Your task to perform on an android device: When is my next meeting? Image 0: 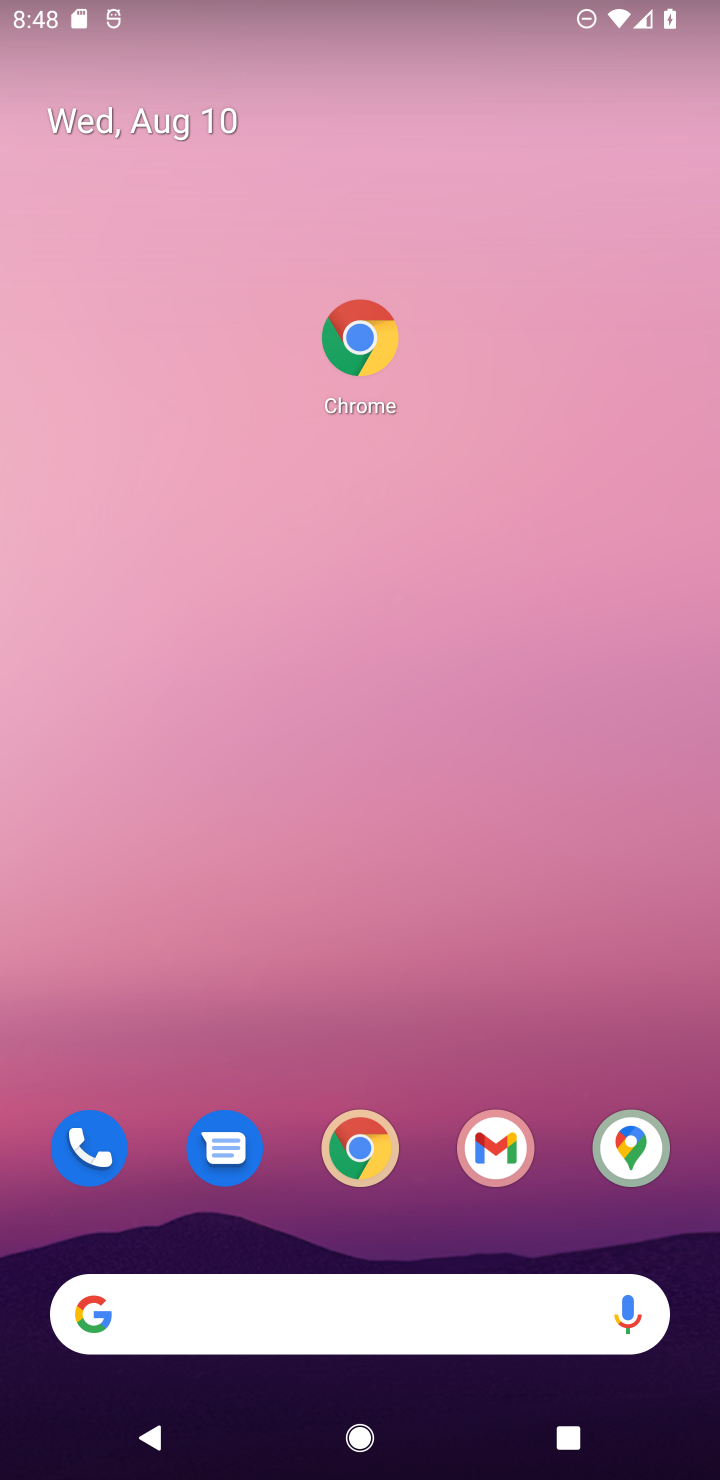
Step 0: click (87, 114)
Your task to perform on an android device: When is my next meeting? Image 1: 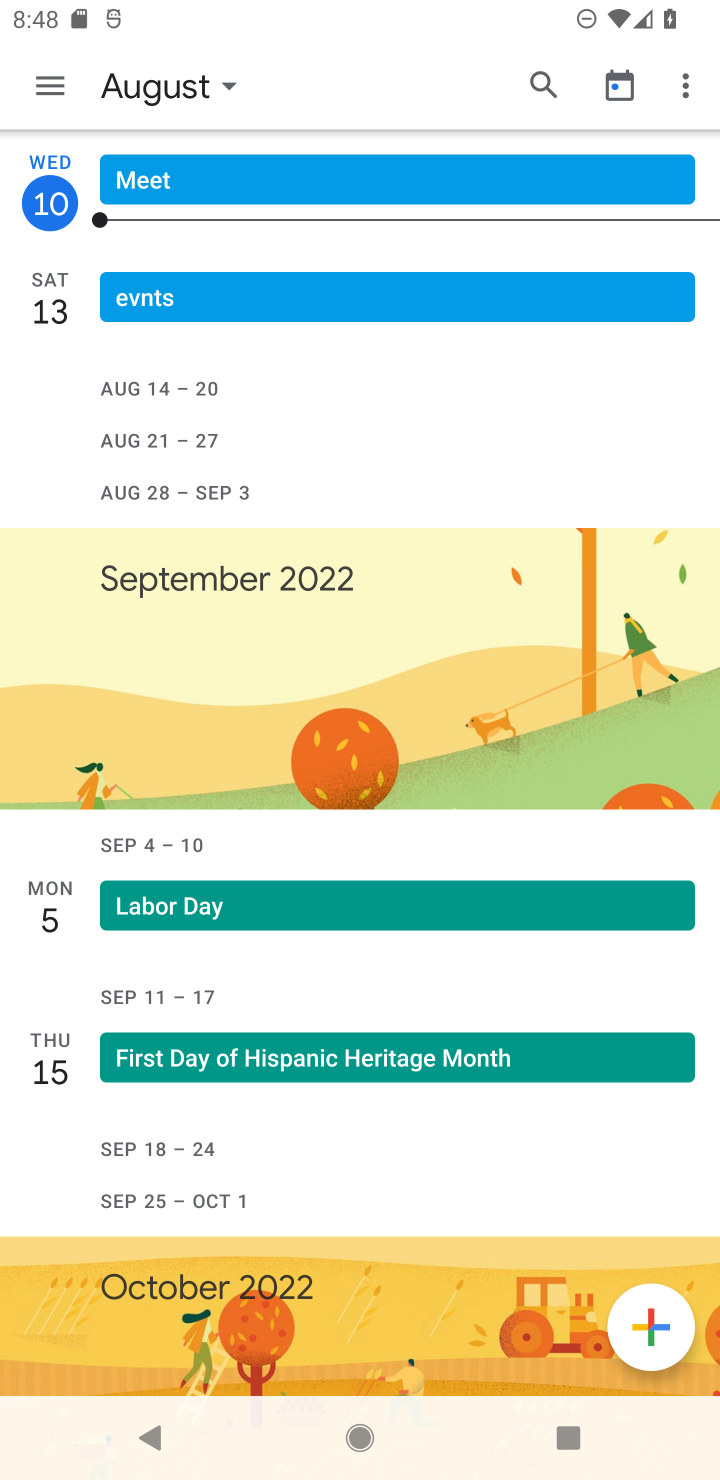
Step 1: click (44, 76)
Your task to perform on an android device: When is my next meeting? Image 2: 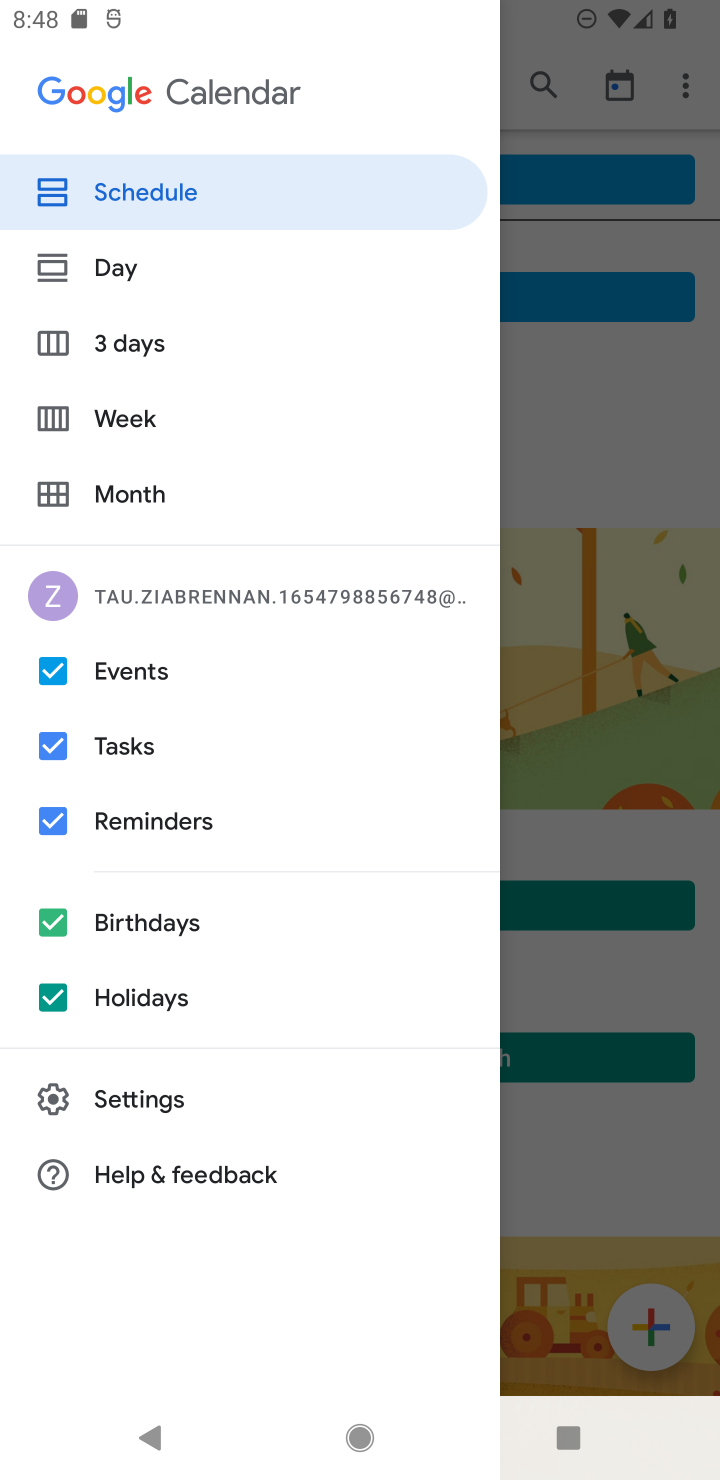
Step 2: click (643, 336)
Your task to perform on an android device: When is my next meeting? Image 3: 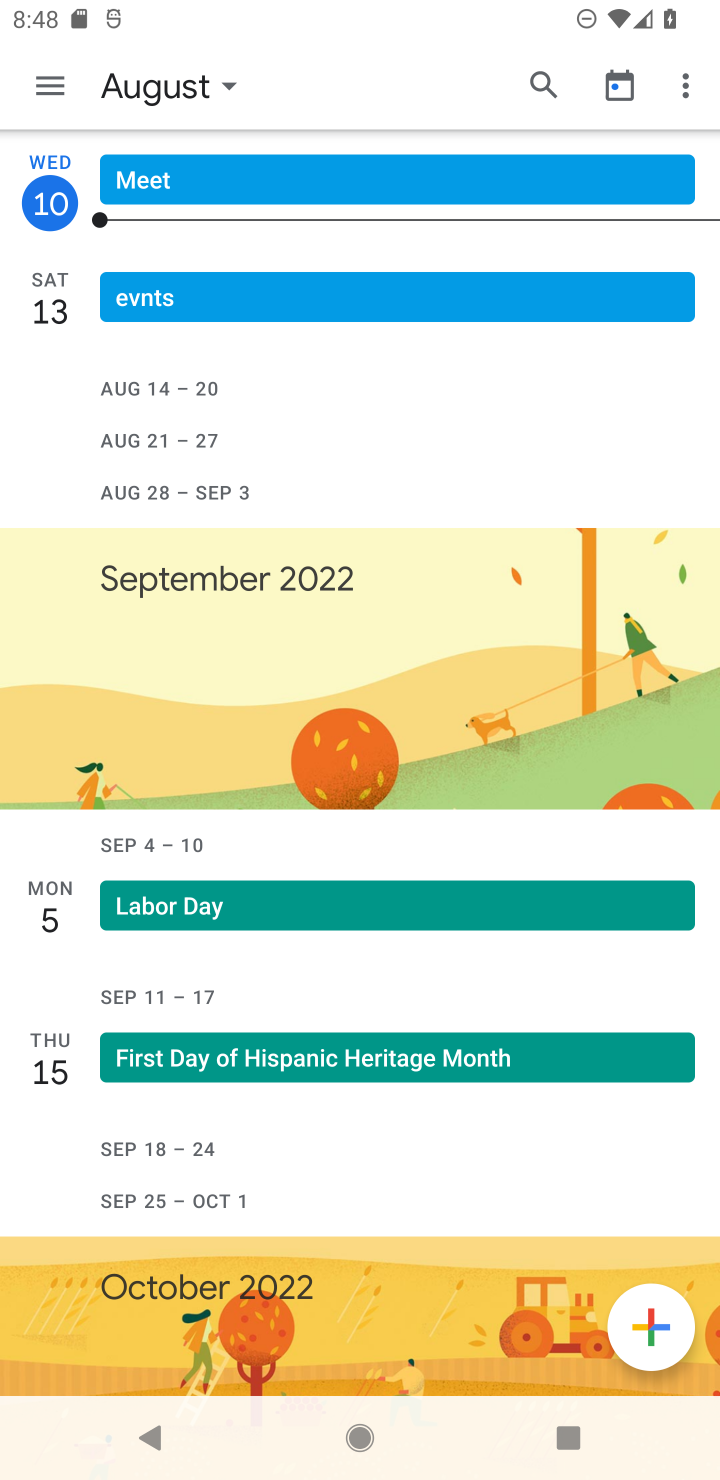
Step 3: click (148, 180)
Your task to perform on an android device: When is my next meeting? Image 4: 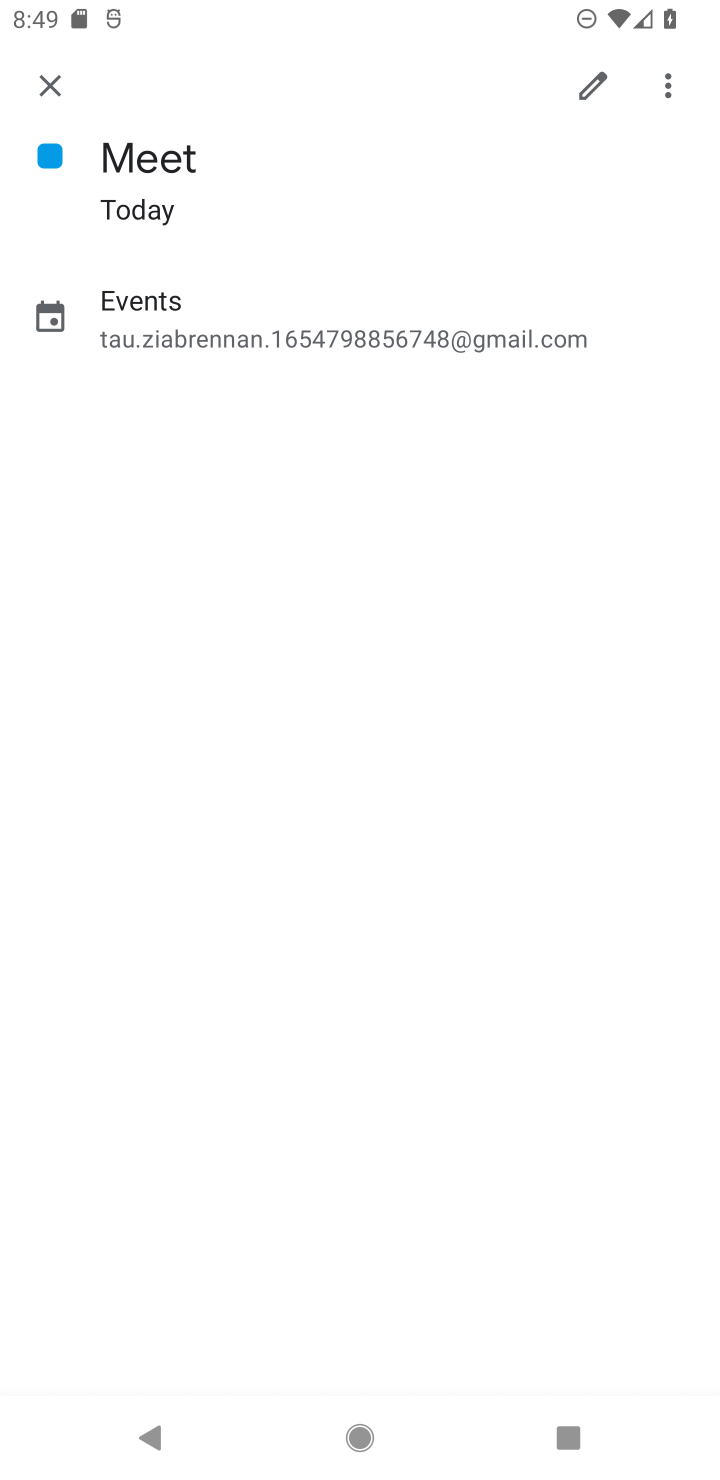
Step 4: task complete